Your task to perform on an android device: open app "Google Sheets" (install if not already installed) Image 0: 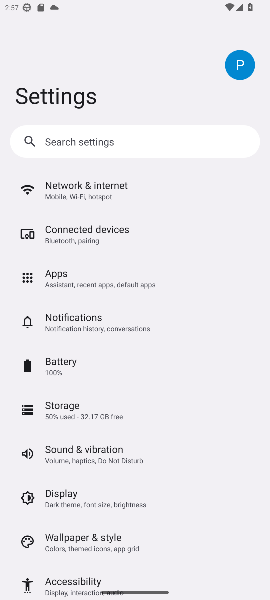
Step 0: press home button
Your task to perform on an android device: open app "Google Sheets" (install if not already installed) Image 1: 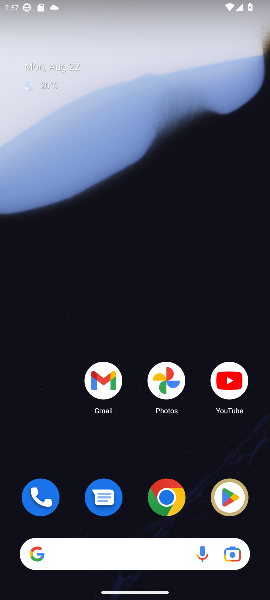
Step 1: drag from (60, 448) to (67, 49)
Your task to perform on an android device: open app "Google Sheets" (install if not already installed) Image 2: 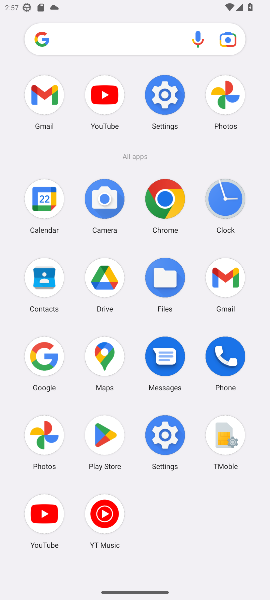
Step 2: click (99, 434)
Your task to perform on an android device: open app "Google Sheets" (install if not already installed) Image 3: 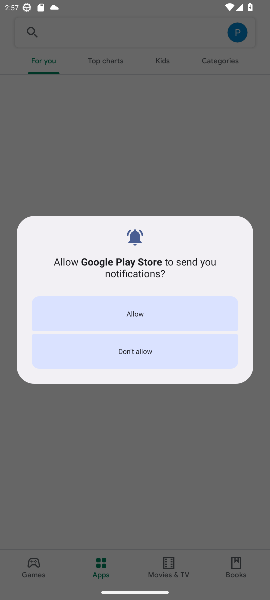
Step 3: click (176, 309)
Your task to perform on an android device: open app "Google Sheets" (install if not already installed) Image 4: 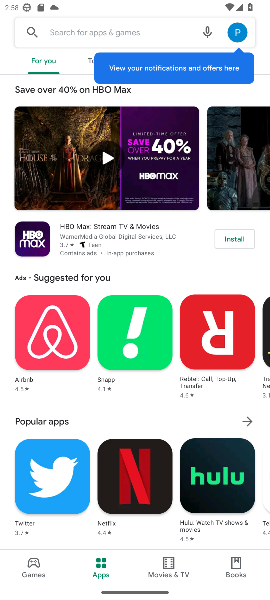
Step 4: click (131, 26)
Your task to perform on an android device: open app "Google Sheets" (install if not already installed) Image 5: 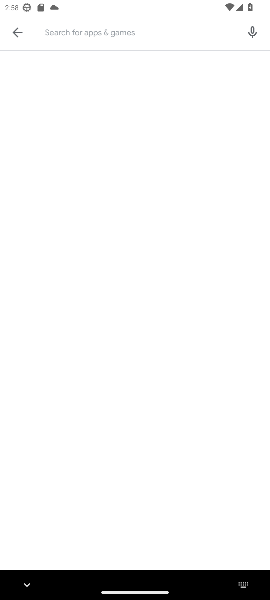
Step 5: type "google sheets"
Your task to perform on an android device: open app "Google Sheets" (install if not already installed) Image 6: 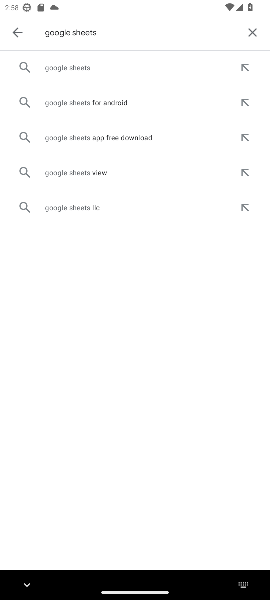
Step 6: click (93, 67)
Your task to perform on an android device: open app "Google Sheets" (install if not already installed) Image 7: 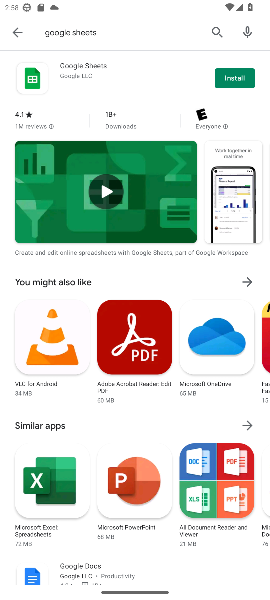
Step 7: click (234, 77)
Your task to perform on an android device: open app "Google Sheets" (install if not already installed) Image 8: 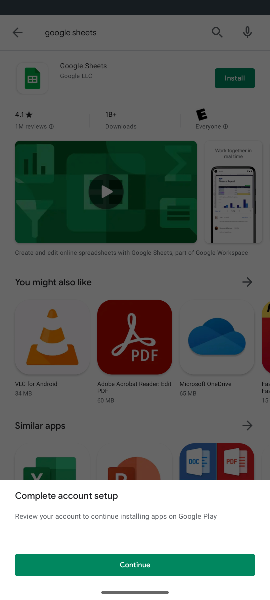
Step 8: click (181, 562)
Your task to perform on an android device: open app "Google Sheets" (install if not already installed) Image 9: 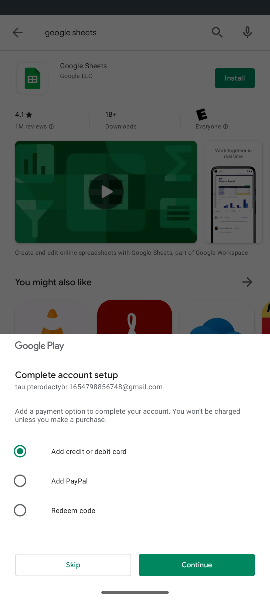
Step 9: click (70, 564)
Your task to perform on an android device: open app "Google Sheets" (install if not already installed) Image 10: 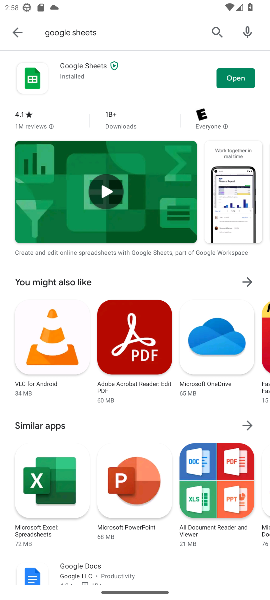
Step 10: click (238, 77)
Your task to perform on an android device: open app "Google Sheets" (install if not already installed) Image 11: 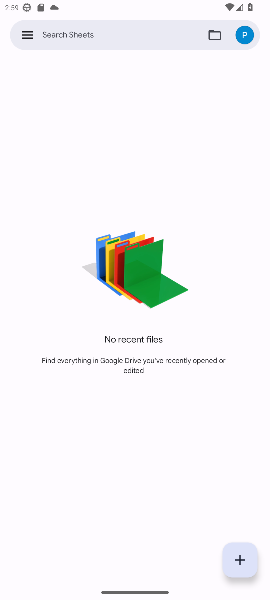
Step 11: task complete